Your task to perform on an android device: What is the news today? Image 0: 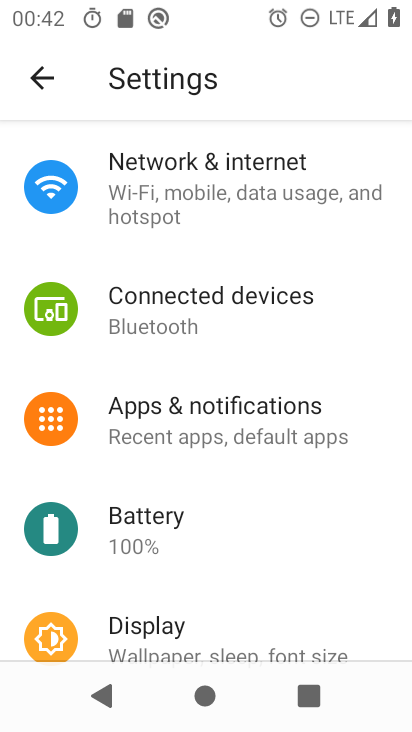
Step 0: press home button
Your task to perform on an android device: What is the news today? Image 1: 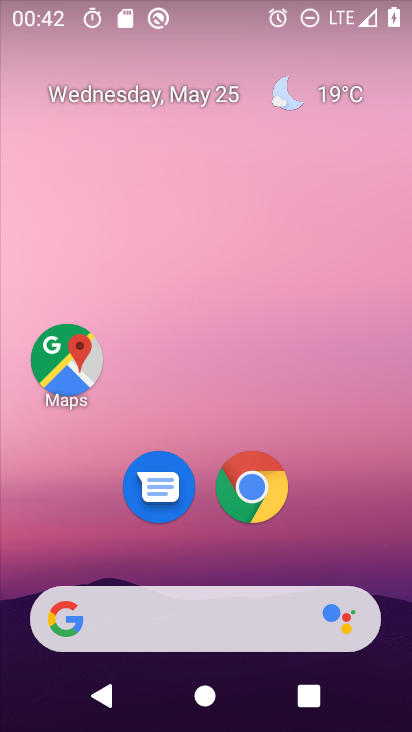
Step 1: click (116, 619)
Your task to perform on an android device: What is the news today? Image 2: 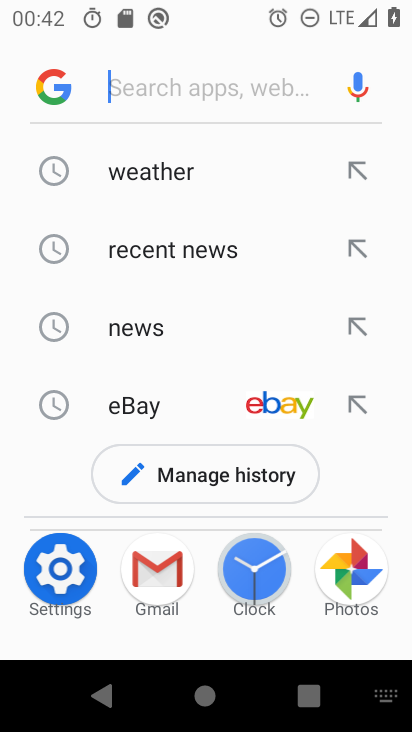
Step 2: type "news today"
Your task to perform on an android device: What is the news today? Image 3: 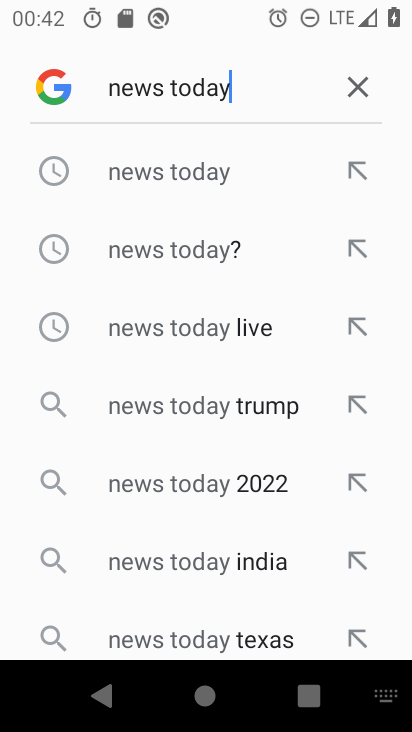
Step 3: click (140, 176)
Your task to perform on an android device: What is the news today? Image 4: 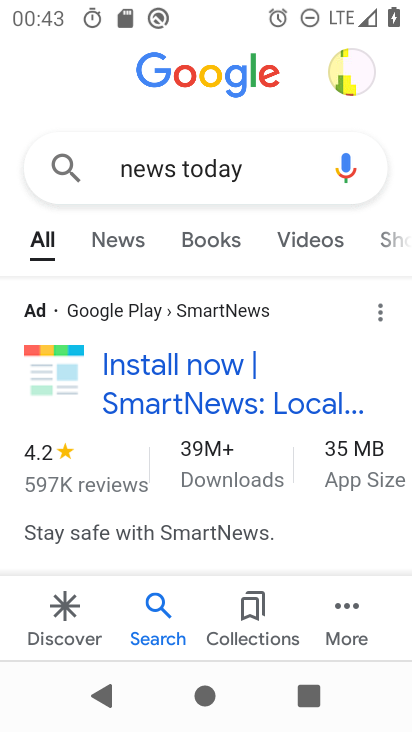
Step 4: click (121, 248)
Your task to perform on an android device: What is the news today? Image 5: 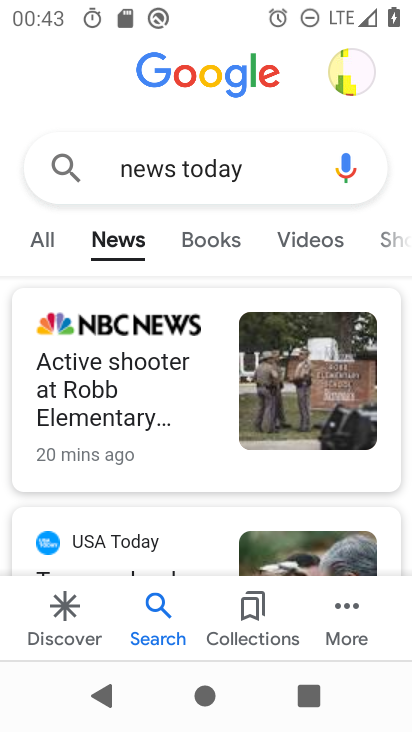
Step 5: drag from (137, 475) to (127, 317)
Your task to perform on an android device: What is the news today? Image 6: 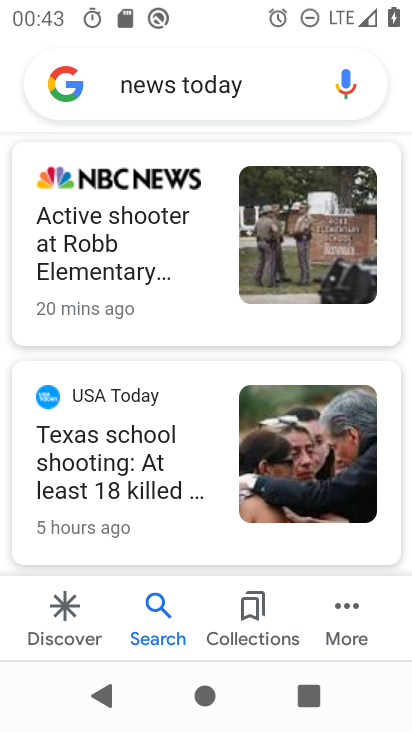
Step 6: click (94, 258)
Your task to perform on an android device: What is the news today? Image 7: 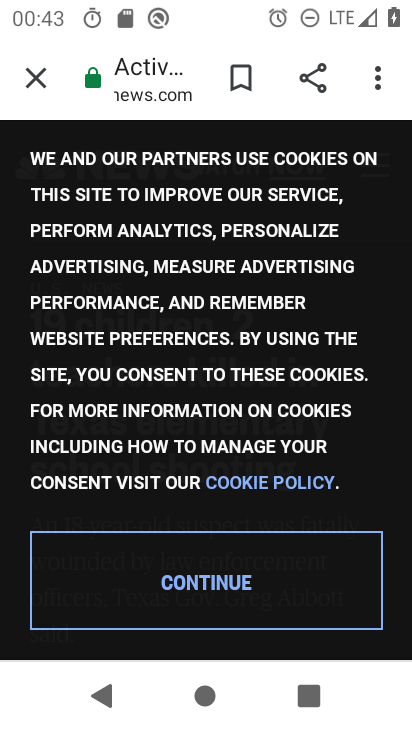
Step 7: task complete